Your task to perform on an android device: turn on bluetooth scan Image 0: 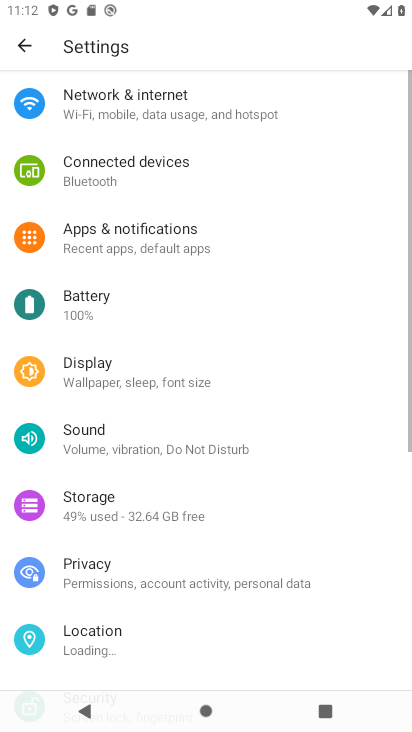
Step 0: press home button
Your task to perform on an android device: turn on bluetooth scan Image 1: 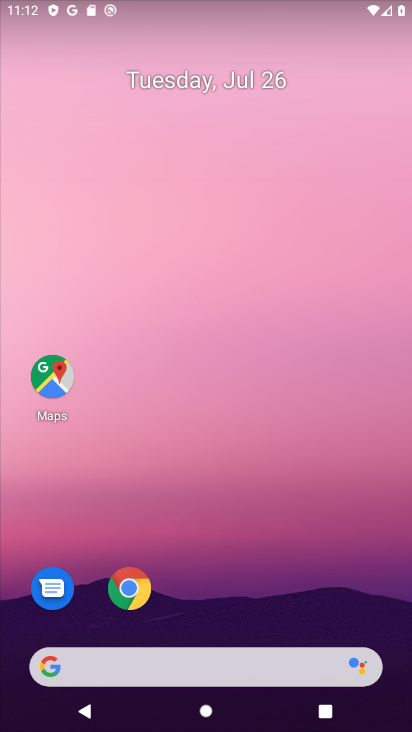
Step 1: drag from (221, 621) to (225, 35)
Your task to perform on an android device: turn on bluetooth scan Image 2: 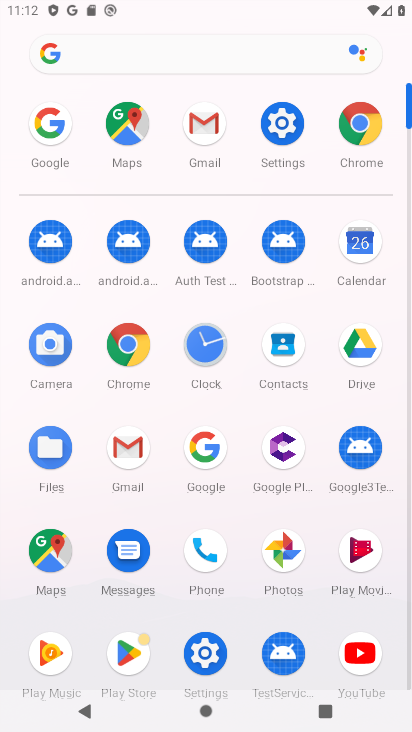
Step 2: click (206, 648)
Your task to perform on an android device: turn on bluetooth scan Image 3: 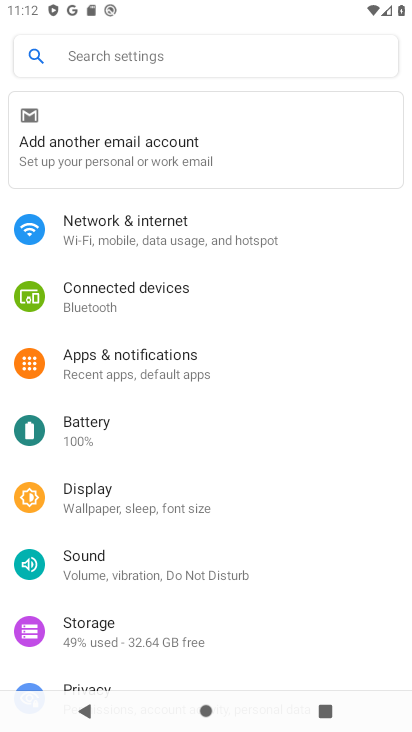
Step 3: drag from (148, 643) to (181, 219)
Your task to perform on an android device: turn on bluetooth scan Image 4: 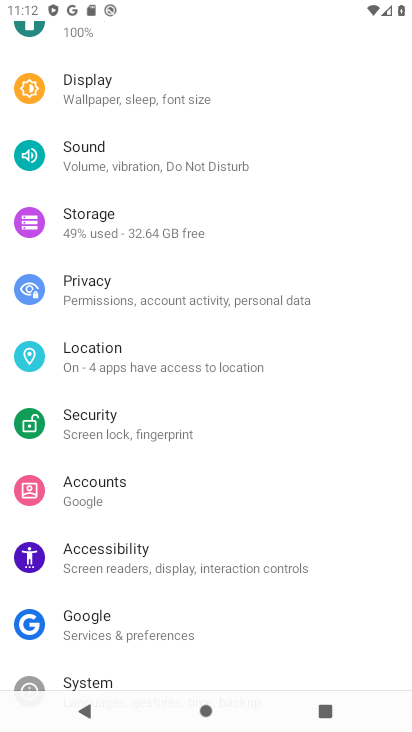
Step 4: click (134, 347)
Your task to perform on an android device: turn on bluetooth scan Image 5: 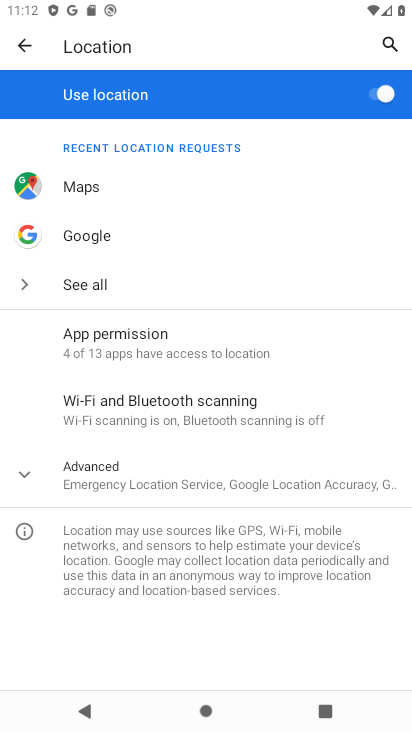
Step 5: click (204, 409)
Your task to perform on an android device: turn on bluetooth scan Image 6: 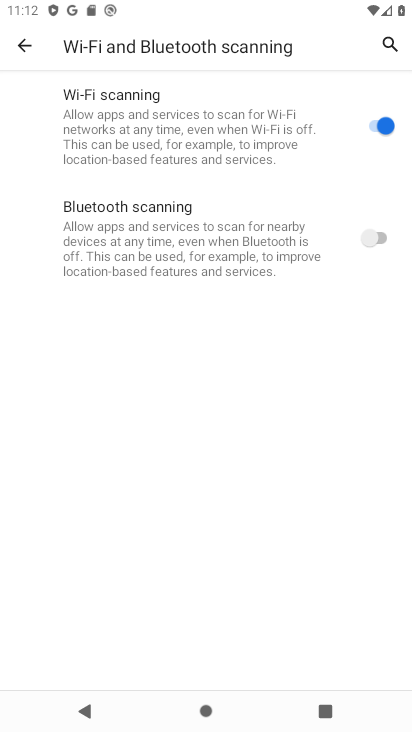
Step 6: click (386, 238)
Your task to perform on an android device: turn on bluetooth scan Image 7: 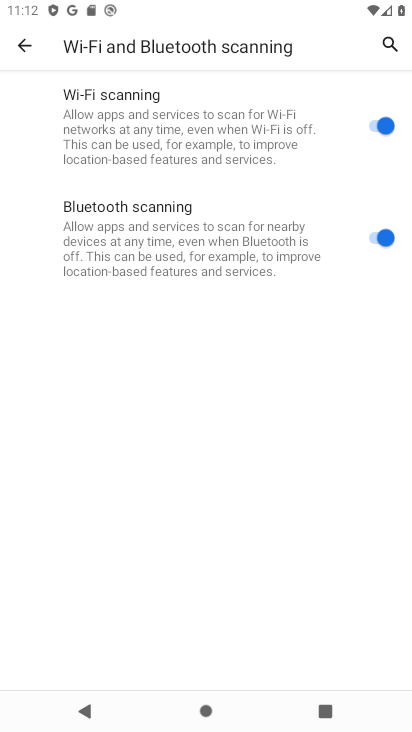
Step 7: task complete